Your task to perform on an android device: Show me the alarms in the clock app Image 0: 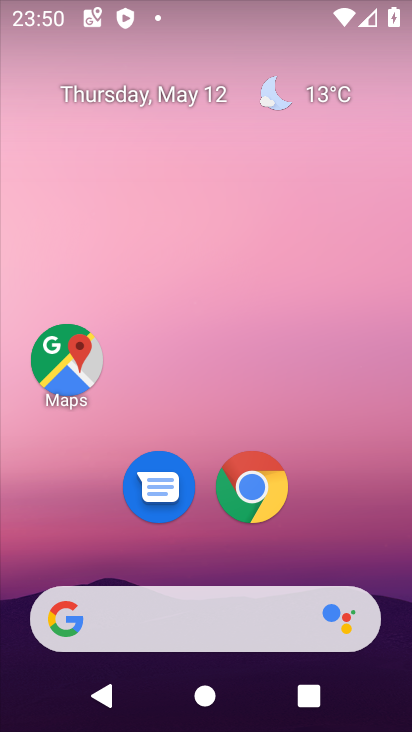
Step 0: drag from (210, 557) to (236, 25)
Your task to perform on an android device: Show me the alarms in the clock app Image 1: 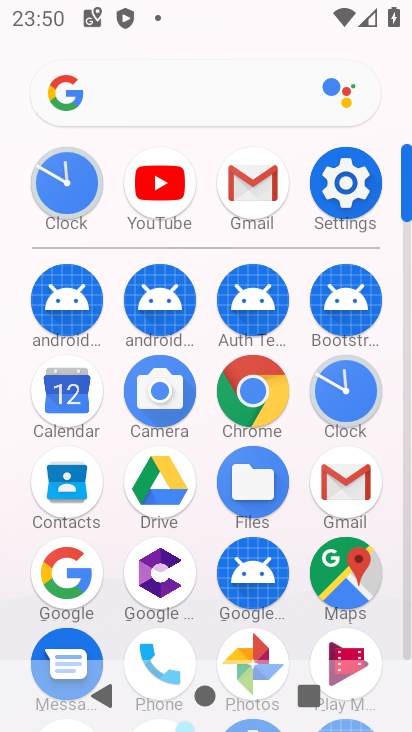
Step 1: click (347, 396)
Your task to perform on an android device: Show me the alarms in the clock app Image 2: 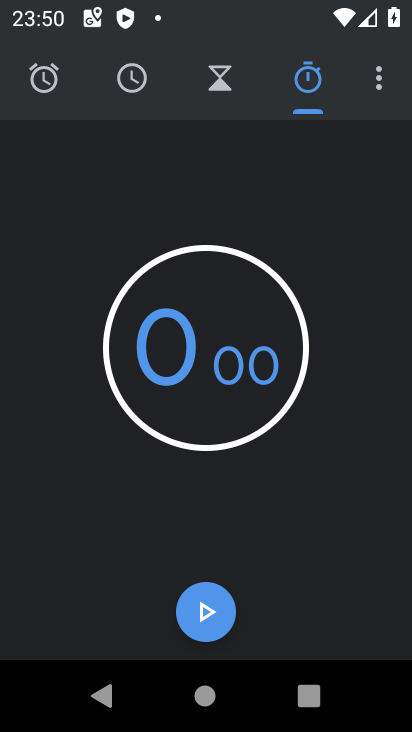
Step 2: click (61, 93)
Your task to perform on an android device: Show me the alarms in the clock app Image 3: 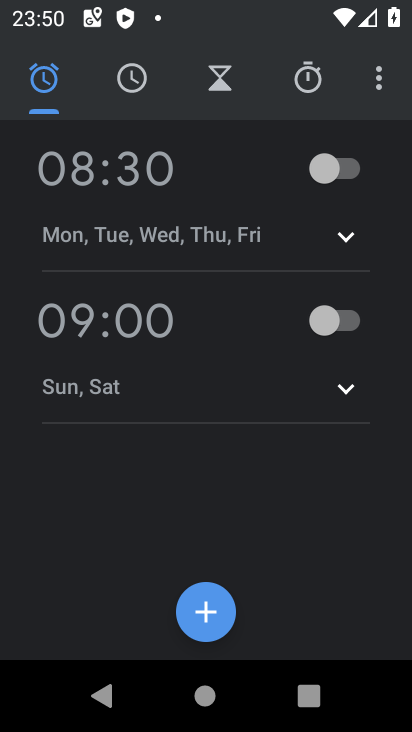
Step 3: task complete